Your task to perform on an android device: Go to network settings Image 0: 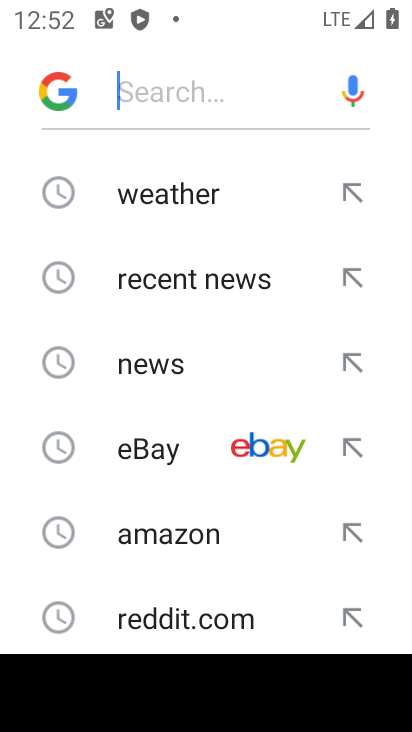
Step 0: press home button
Your task to perform on an android device: Go to network settings Image 1: 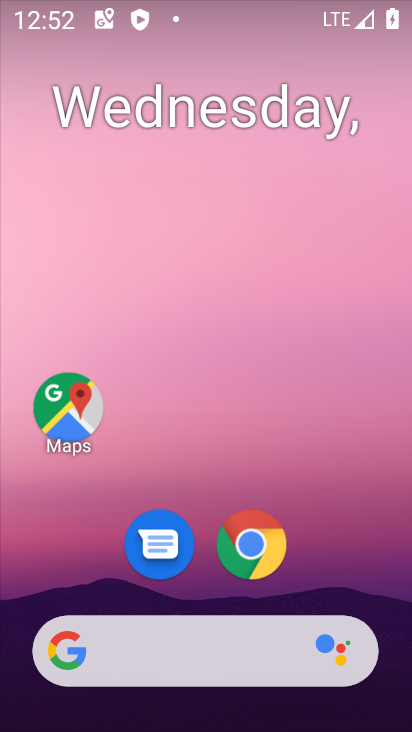
Step 1: drag from (391, 650) to (349, 75)
Your task to perform on an android device: Go to network settings Image 2: 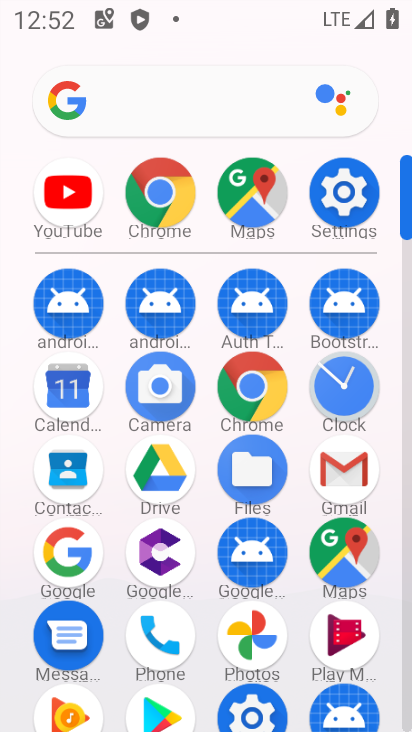
Step 2: click (353, 213)
Your task to perform on an android device: Go to network settings Image 3: 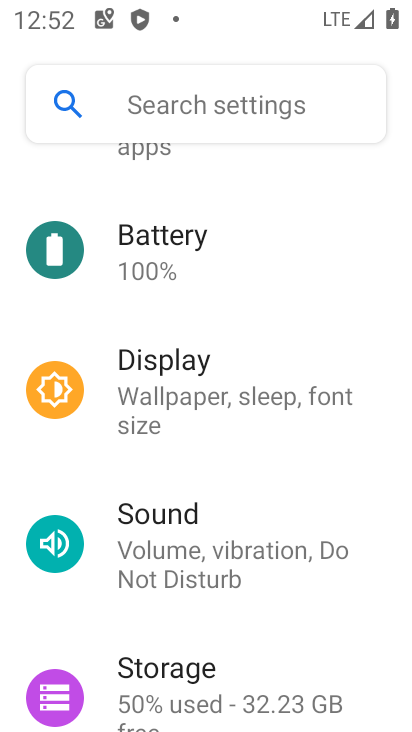
Step 3: drag from (316, 217) to (329, 680)
Your task to perform on an android device: Go to network settings Image 4: 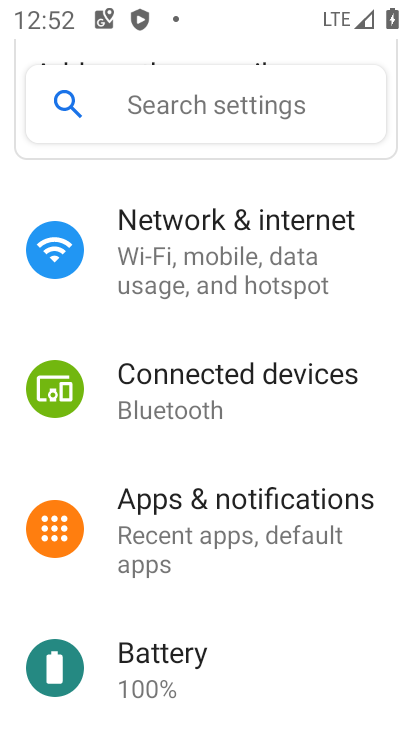
Step 4: drag from (274, 234) to (299, 498)
Your task to perform on an android device: Go to network settings Image 5: 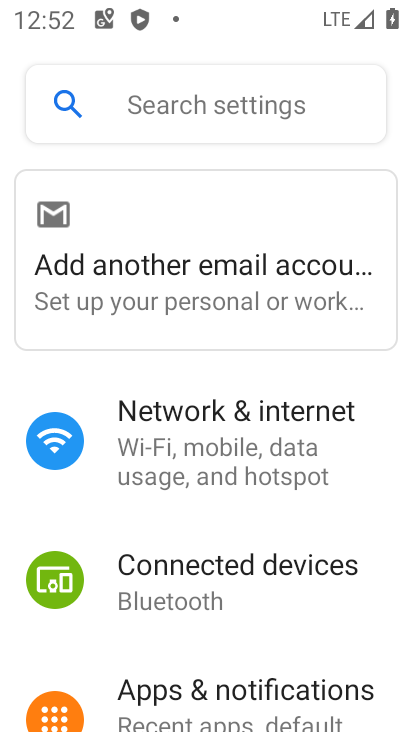
Step 5: click (232, 448)
Your task to perform on an android device: Go to network settings Image 6: 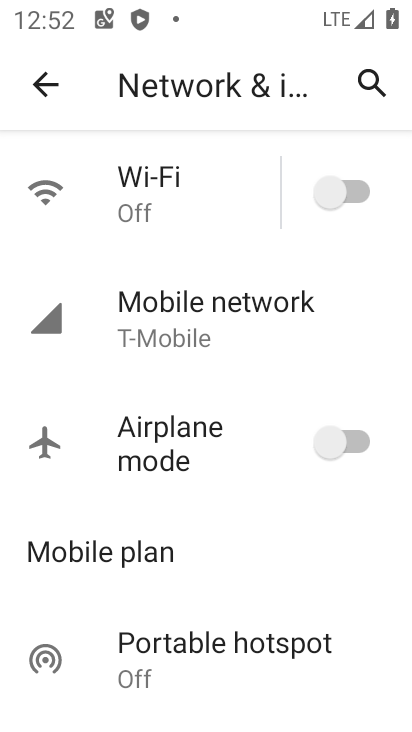
Step 6: click (212, 203)
Your task to perform on an android device: Go to network settings Image 7: 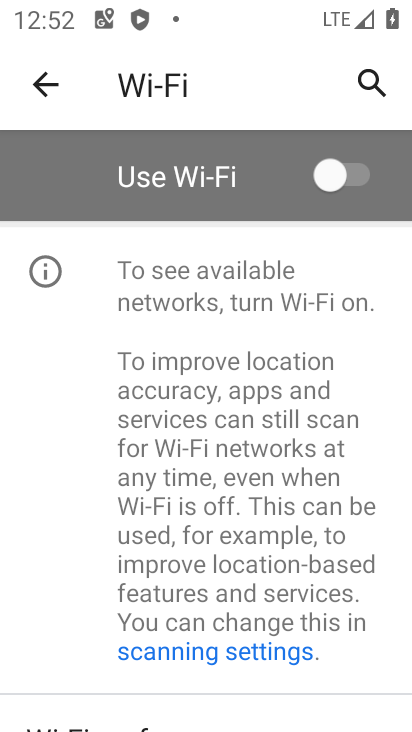
Step 7: task complete